Your task to perform on an android device: Open the map Image 0: 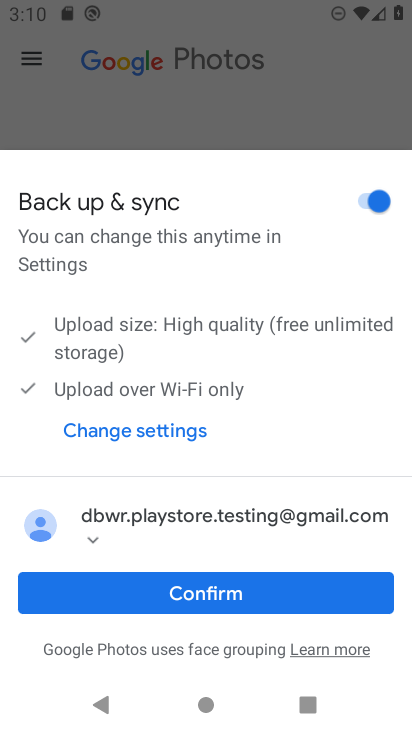
Step 0: press back button
Your task to perform on an android device: Open the map Image 1: 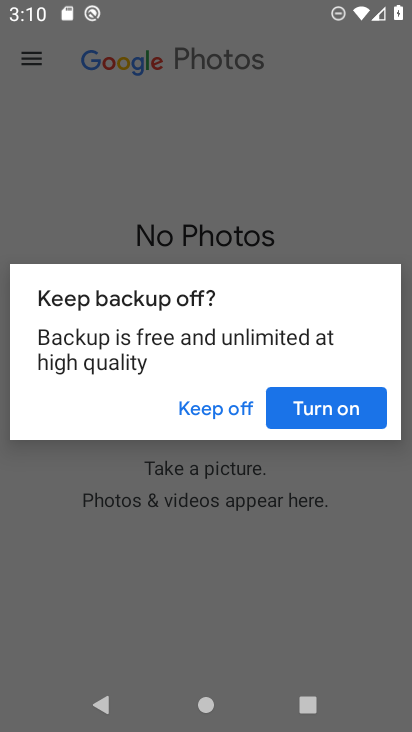
Step 1: press home button
Your task to perform on an android device: Open the map Image 2: 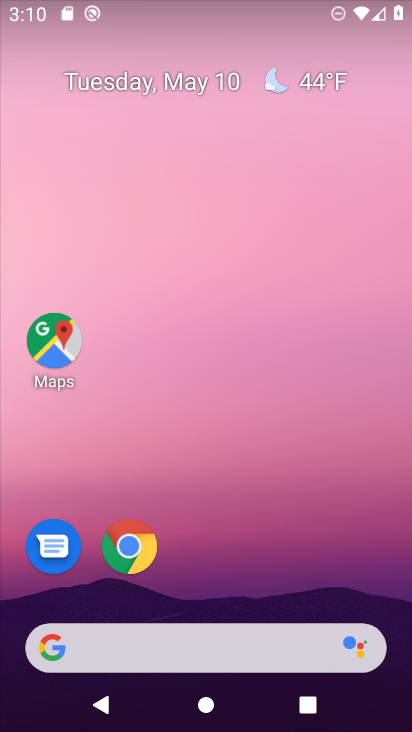
Step 2: click (69, 355)
Your task to perform on an android device: Open the map Image 3: 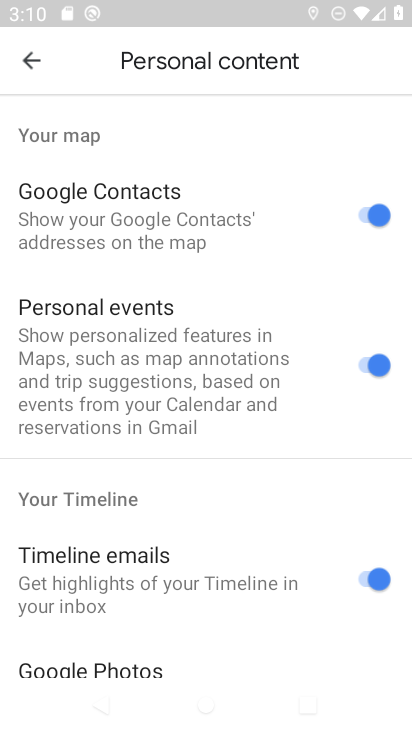
Step 3: press home button
Your task to perform on an android device: Open the map Image 4: 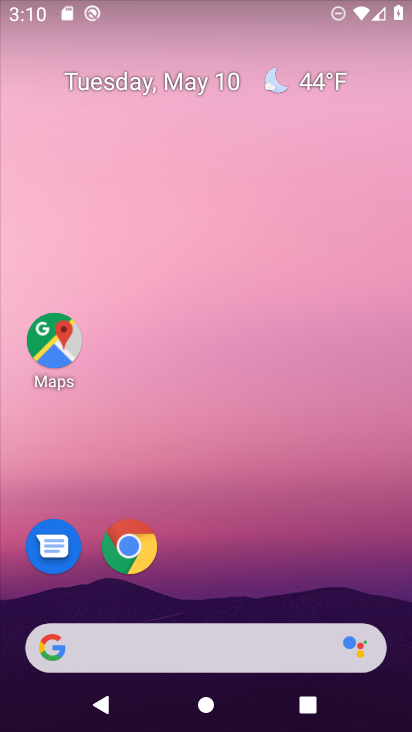
Step 4: drag from (205, 729) to (223, 281)
Your task to perform on an android device: Open the map Image 5: 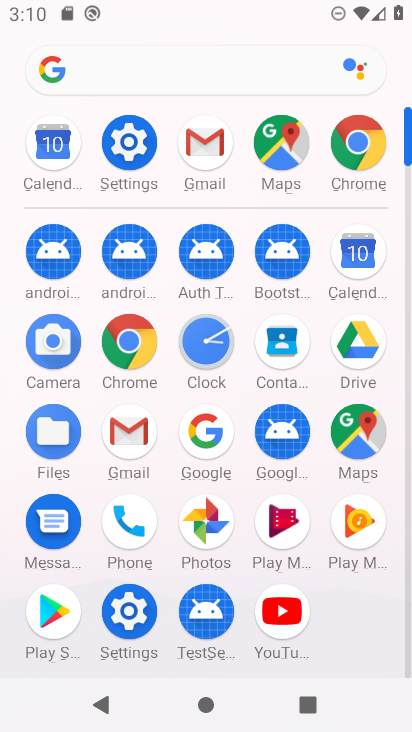
Step 5: click (288, 159)
Your task to perform on an android device: Open the map Image 6: 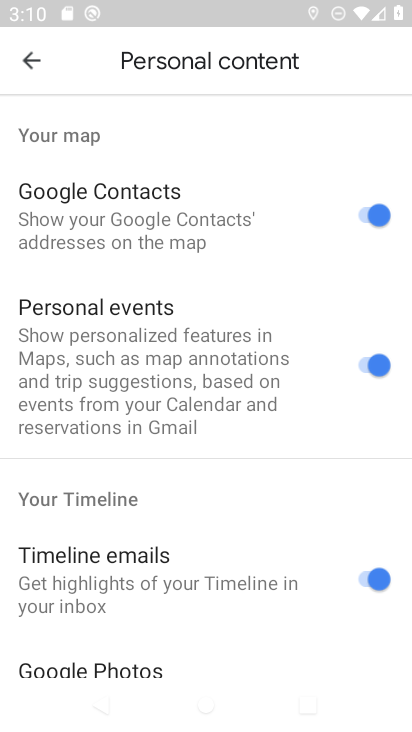
Step 6: task complete